Your task to perform on an android device: Is it going to rain today? Image 0: 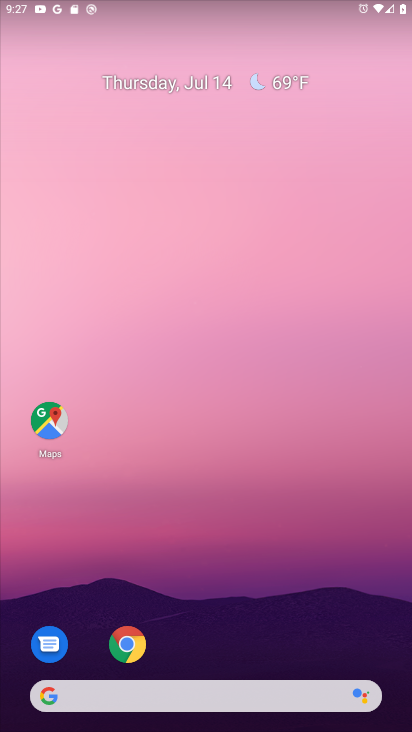
Step 0: click (193, 687)
Your task to perform on an android device: Is it going to rain today? Image 1: 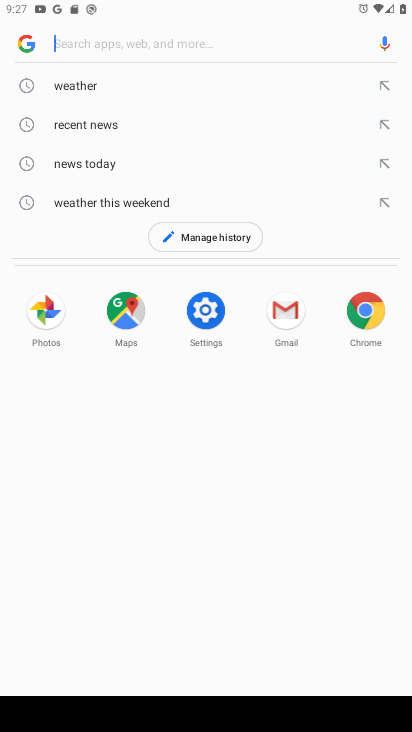
Step 1: type "weather"
Your task to perform on an android device: Is it going to rain today? Image 2: 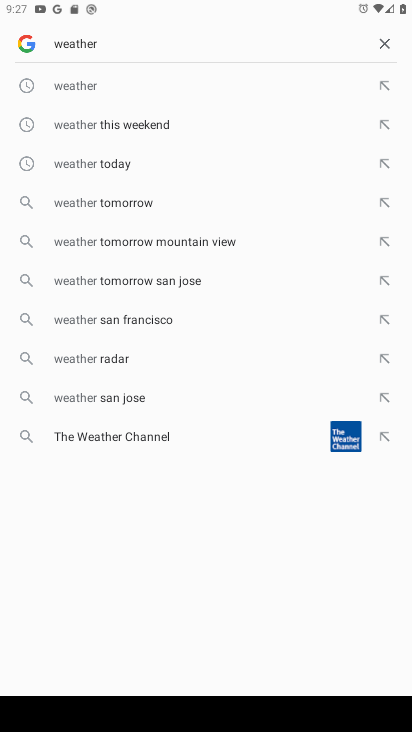
Step 2: click (160, 86)
Your task to perform on an android device: Is it going to rain today? Image 3: 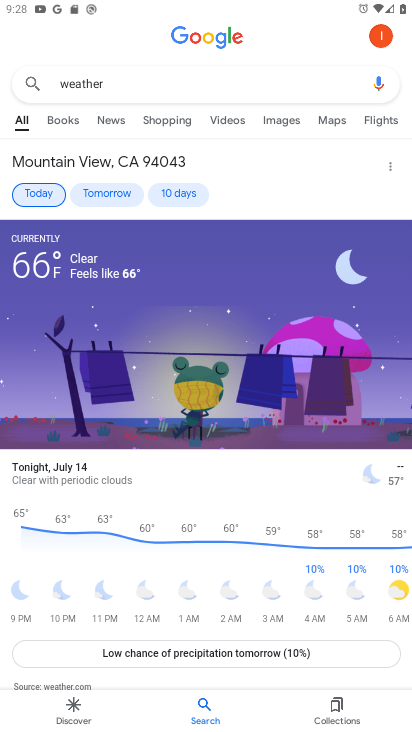
Step 3: task complete